Your task to perform on an android device: toggle notification dots Image 0: 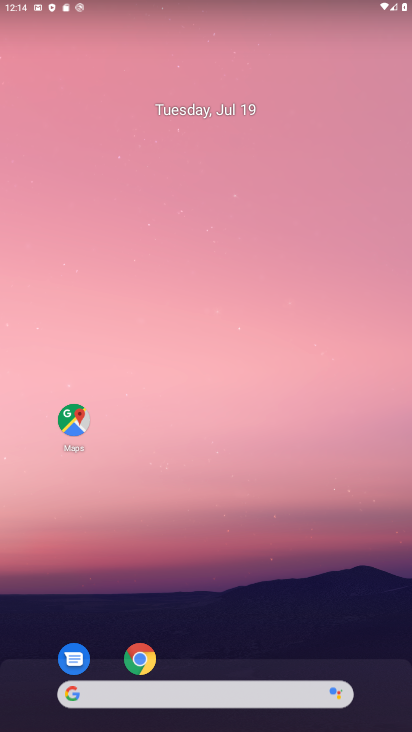
Step 0: drag from (190, 692) to (125, 147)
Your task to perform on an android device: toggle notification dots Image 1: 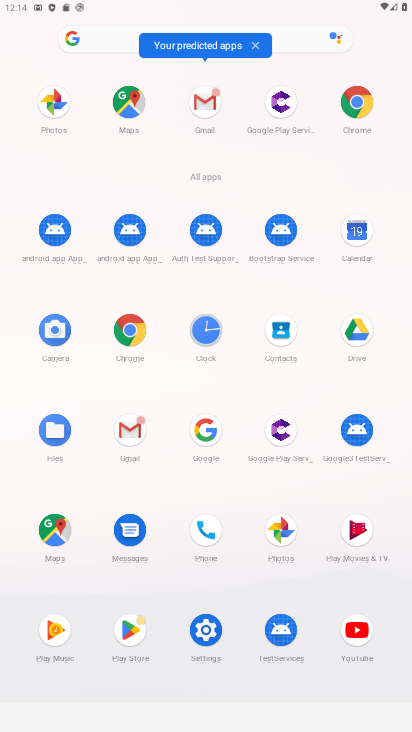
Step 1: click (209, 622)
Your task to perform on an android device: toggle notification dots Image 2: 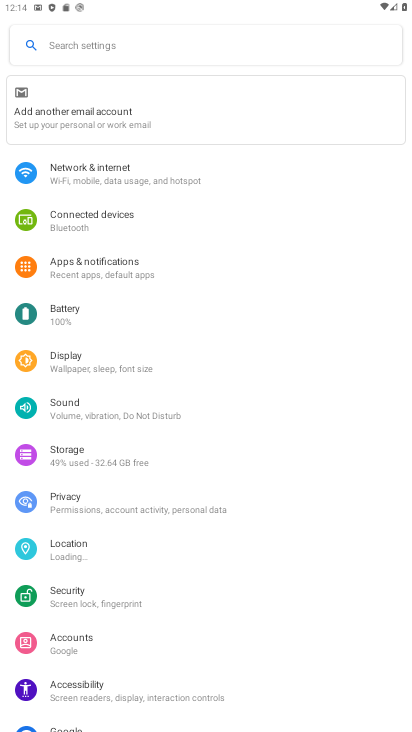
Step 2: click (126, 260)
Your task to perform on an android device: toggle notification dots Image 3: 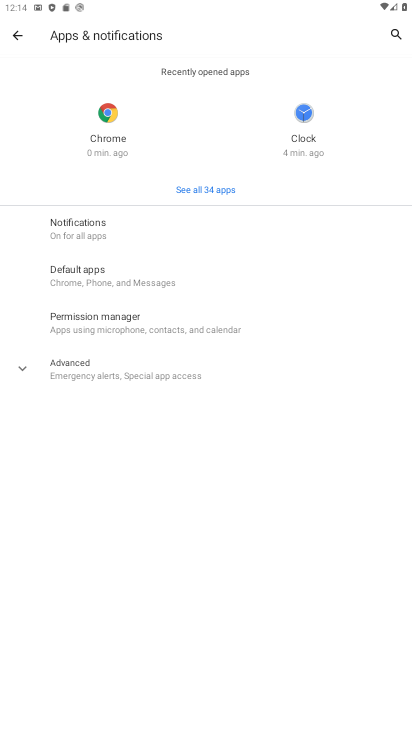
Step 3: click (101, 230)
Your task to perform on an android device: toggle notification dots Image 4: 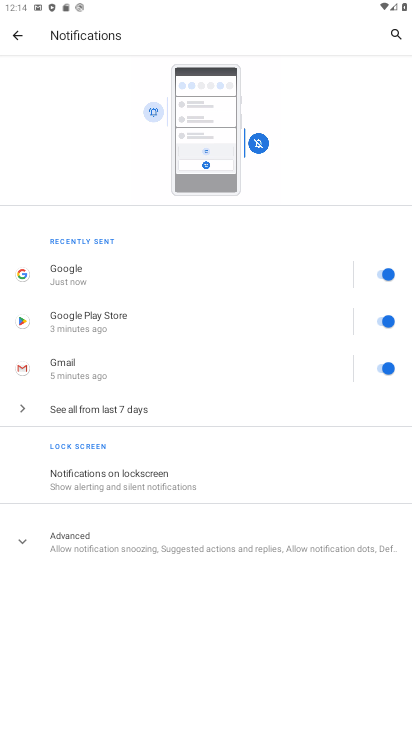
Step 4: click (163, 523)
Your task to perform on an android device: toggle notification dots Image 5: 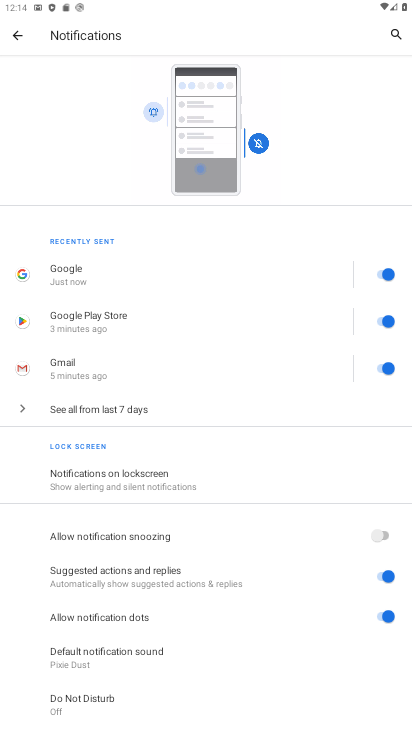
Step 5: click (384, 618)
Your task to perform on an android device: toggle notification dots Image 6: 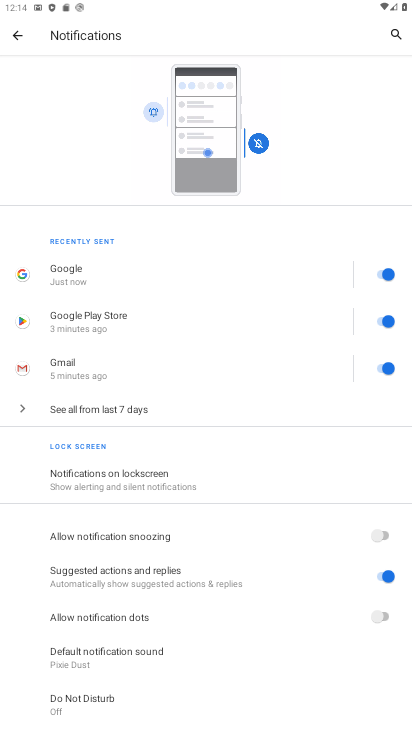
Step 6: task complete